Your task to perform on an android device: Add "logitech g502" to the cart on newegg Image 0: 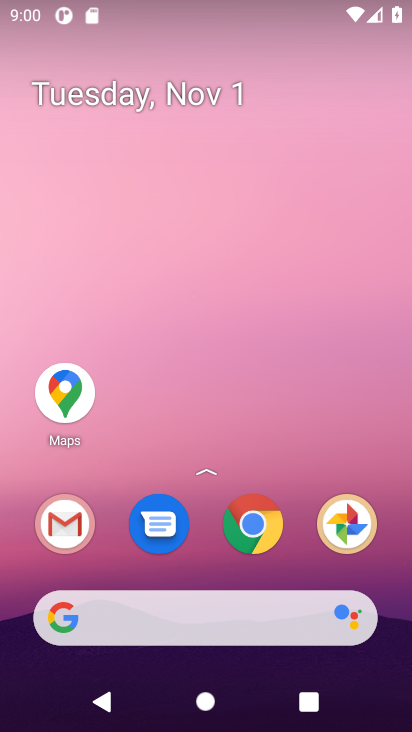
Step 0: press home button
Your task to perform on an android device: Add "logitech g502" to the cart on newegg Image 1: 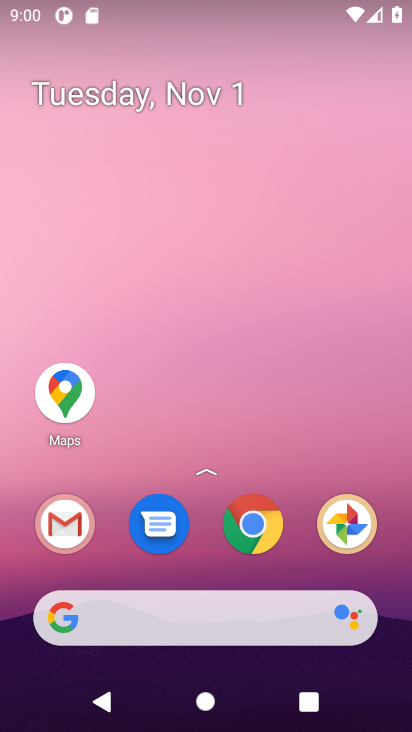
Step 1: click (95, 621)
Your task to perform on an android device: Add "logitech g502" to the cart on newegg Image 2: 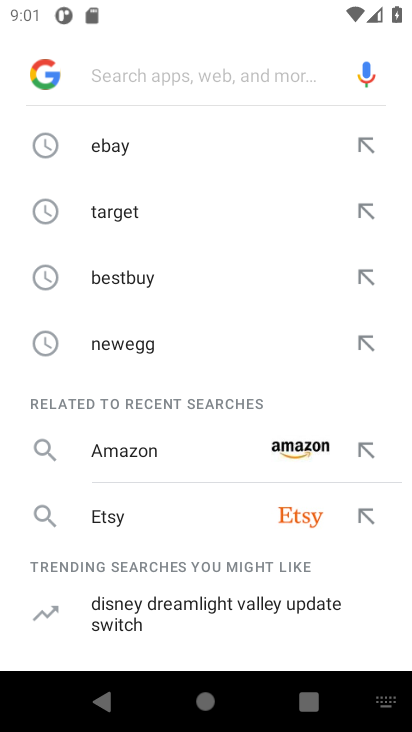
Step 2: type "newegg"
Your task to perform on an android device: Add "logitech g502" to the cart on newegg Image 3: 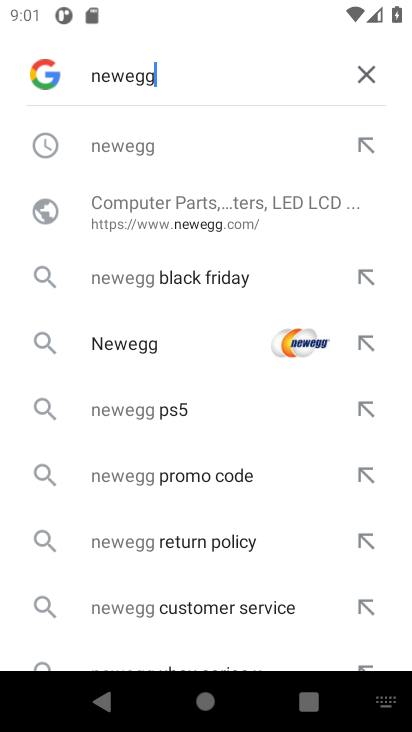
Step 3: press enter
Your task to perform on an android device: Add "logitech g502" to the cart on newegg Image 4: 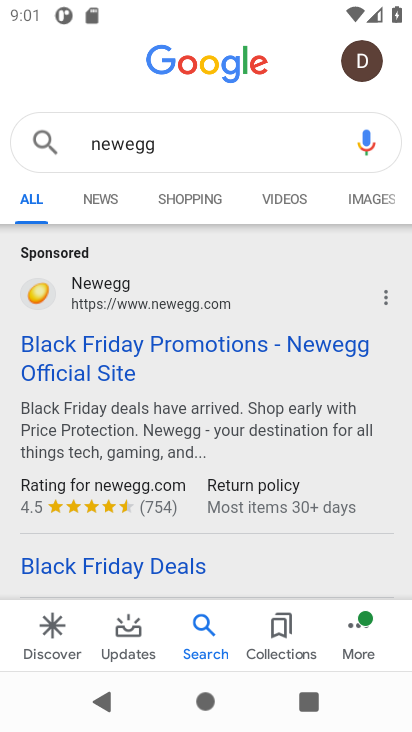
Step 4: drag from (308, 519) to (310, 271)
Your task to perform on an android device: Add "logitech g502" to the cart on newegg Image 5: 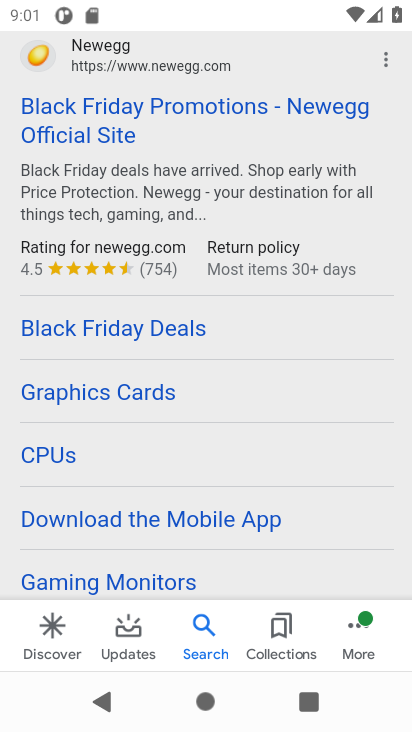
Step 5: click (179, 119)
Your task to perform on an android device: Add "logitech g502" to the cart on newegg Image 6: 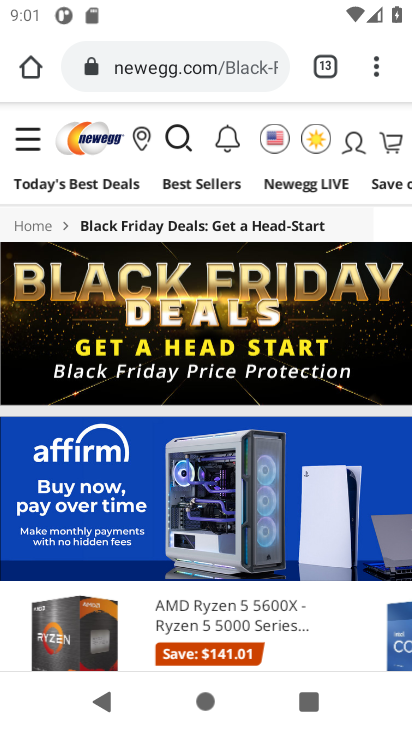
Step 6: click (174, 130)
Your task to perform on an android device: Add "logitech g502" to the cart on newegg Image 7: 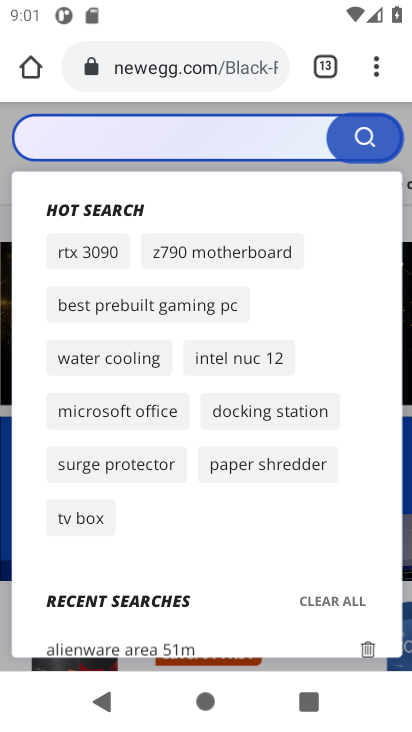
Step 7: type "logitech g502"
Your task to perform on an android device: Add "logitech g502" to the cart on newegg Image 8: 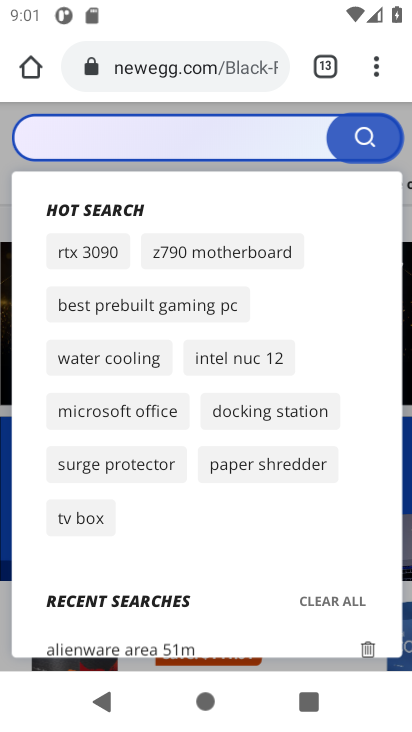
Step 8: press enter
Your task to perform on an android device: Add "logitech g502" to the cart on newegg Image 9: 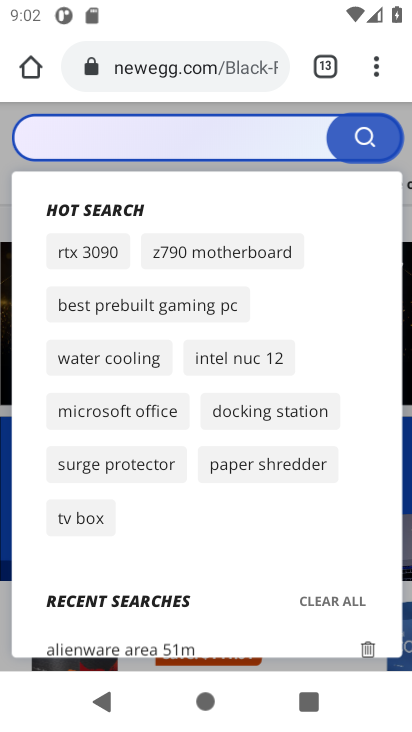
Step 9: click (55, 128)
Your task to perform on an android device: Add "logitech g502" to the cart on newegg Image 10: 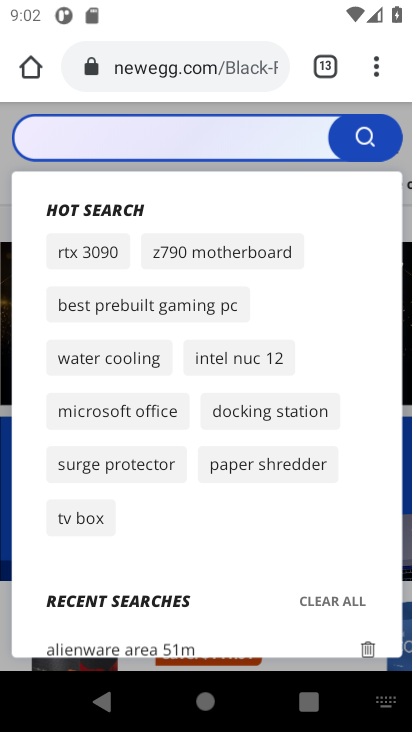
Step 10: press enter
Your task to perform on an android device: Add "logitech g502" to the cart on newegg Image 11: 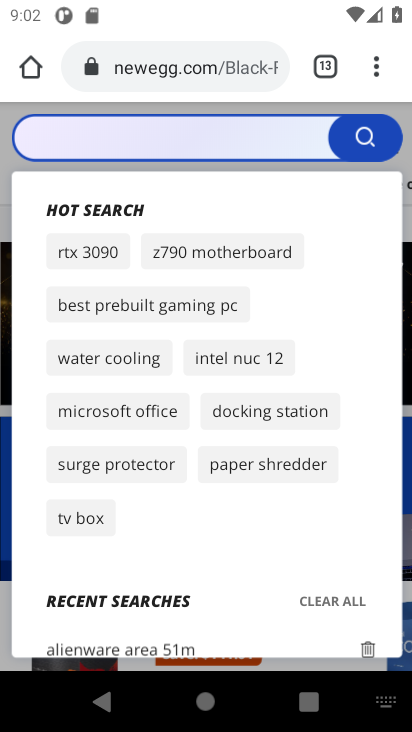
Step 11: type "logitech g502"
Your task to perform on an android device: Add "logitech g502" to the cart on newegg Image 12: 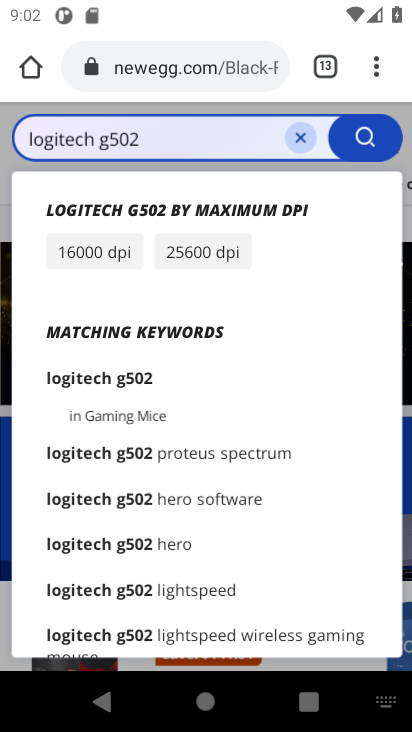
Step 12: press enter
Your task to perform on an android device: Add "logitech g502" to the cart on newegg Image 13: 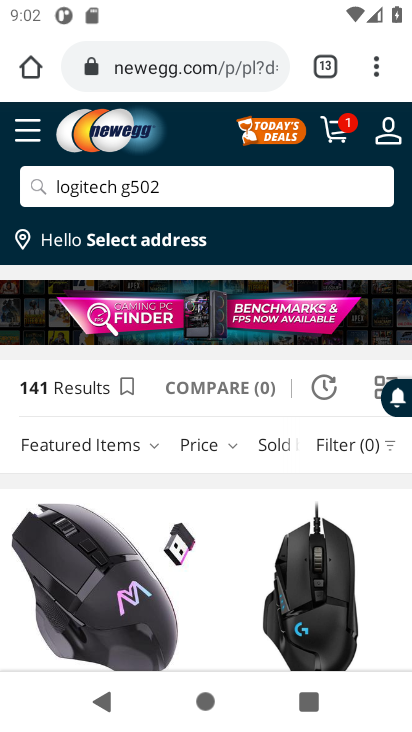
Step 13: drag from (290, 564) to (278, 227)
Your task to perform on an android device: Add "logitech g502" to the cart on newegg Image 14: 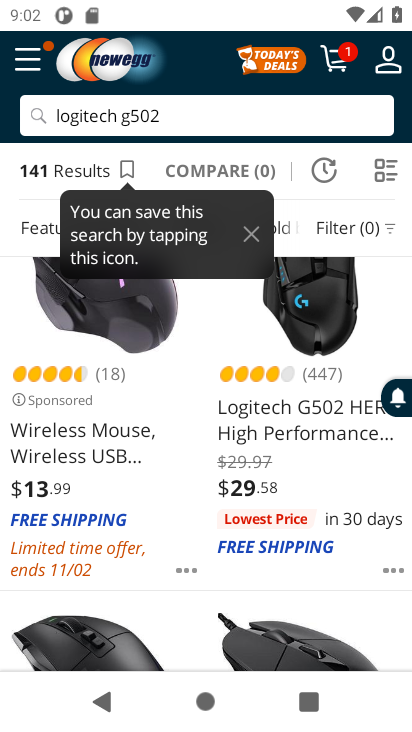
Step 14: click (299, 406)
Your task to perform on an android device: Add "logitech g502" to the cart on newegg Image 15: 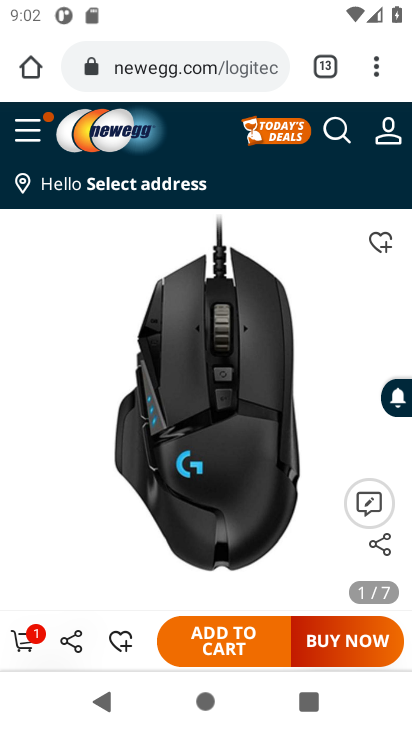
Step 15: click (218, 645)
Your task to perform on an android device: Add "logitech g502" to the cart on newegg Image 16: 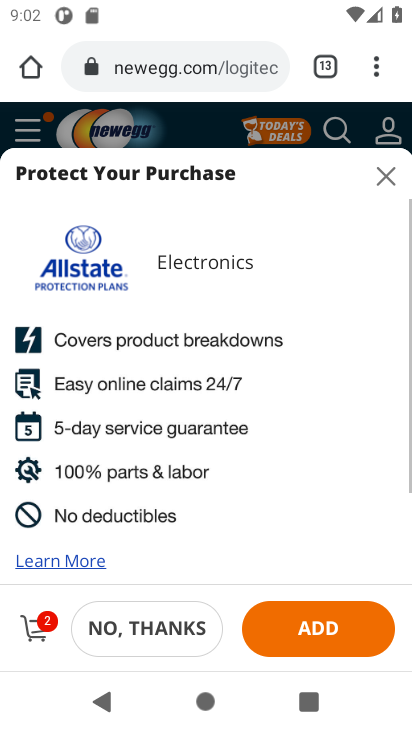
Step 16: click (144, 634)
Your task to perform on an android device: Add "logitech g502" to the cart on newegg Image 17: 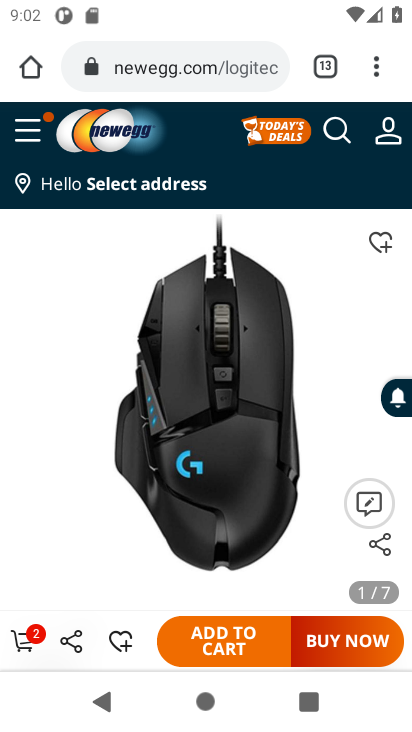
Step 17: task complete